Your task to perform on an android device: delete location history Image 0: 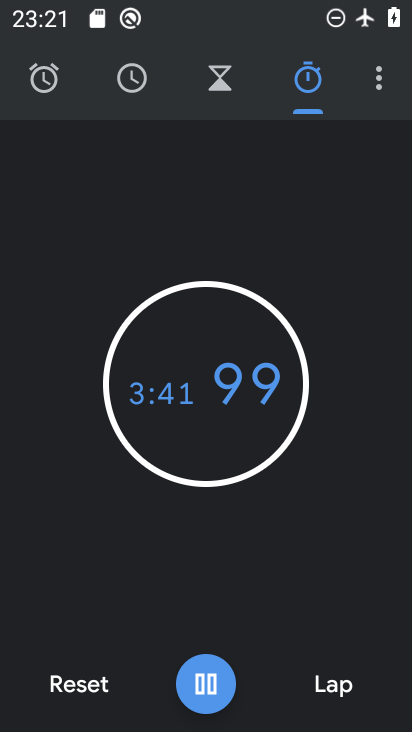
Step 0: drag from (215, 536) to (286, 218)
Your task to perform on an android device: delete location history Image 1: 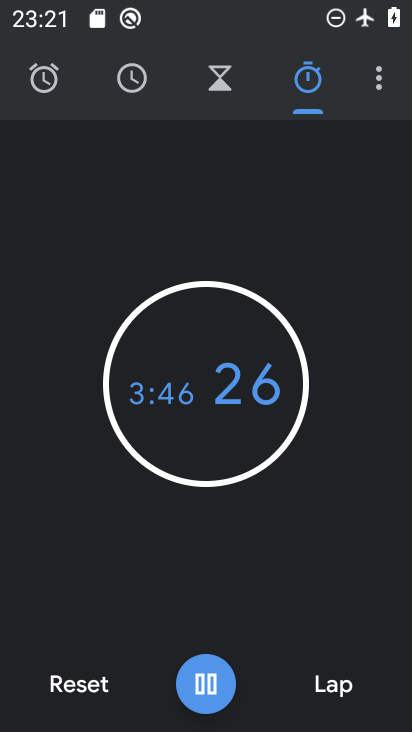
Step 1: press home button
Your task to perform on an android device: delete location history Image 2: 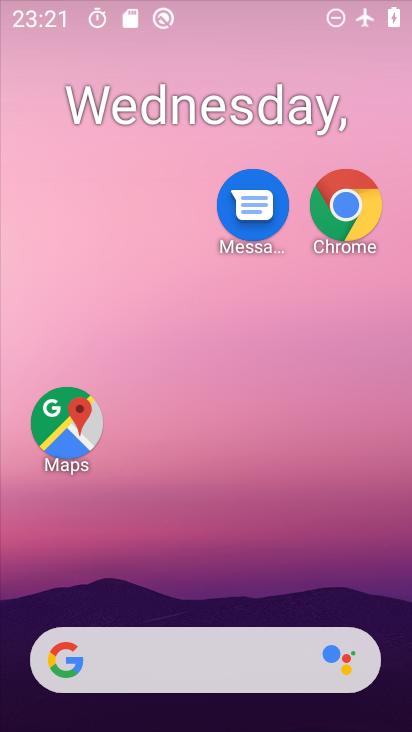
Step 2: drag from (235, 537) to (325, 68)
Your task to perform on an android device: delete location history Image 3: 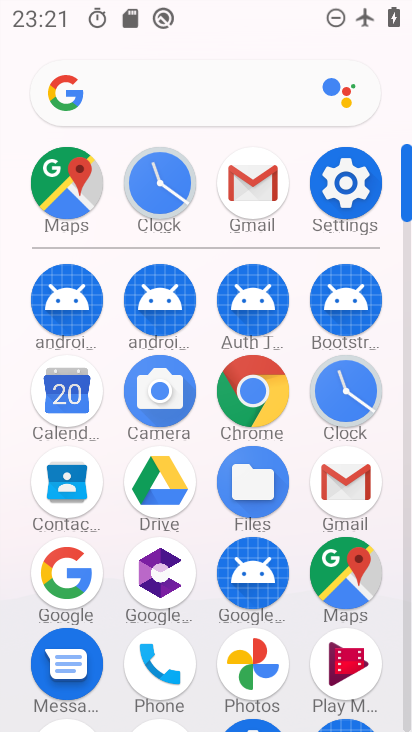
Step 3: click (356, 164)
Your task to perform on an android device: delete location history Image 4: 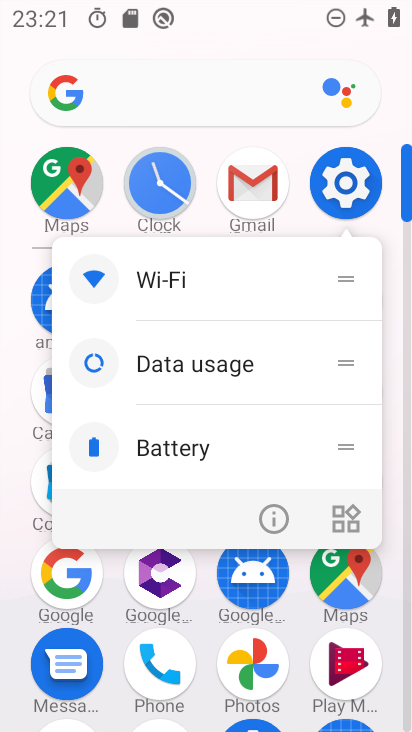
Step 4: click (265, 522)
Your task to perform on an android device: delete location history Image 5: 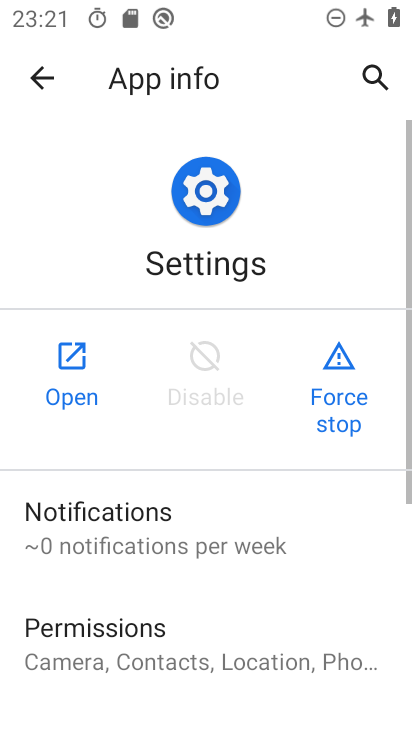
Step 5: click (85, 367)
Your task to perform on an android device: delete location history Image 6: 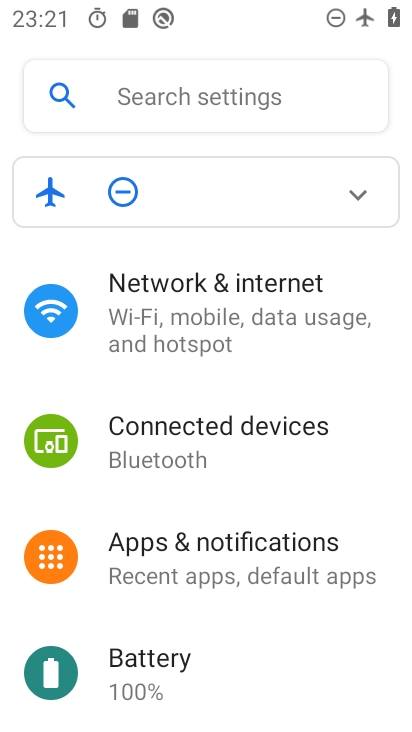
Step 6: drag from (234, 593) to (366, 31)
Your task to perform on an android device: delete location history Image 7: 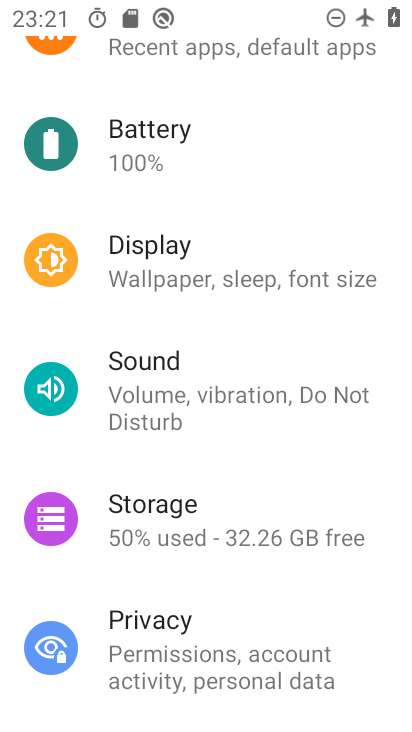
Step 7: drag from (303, 453) to (398, 163)
Your task to perform on an android device: delete location history Image 8: 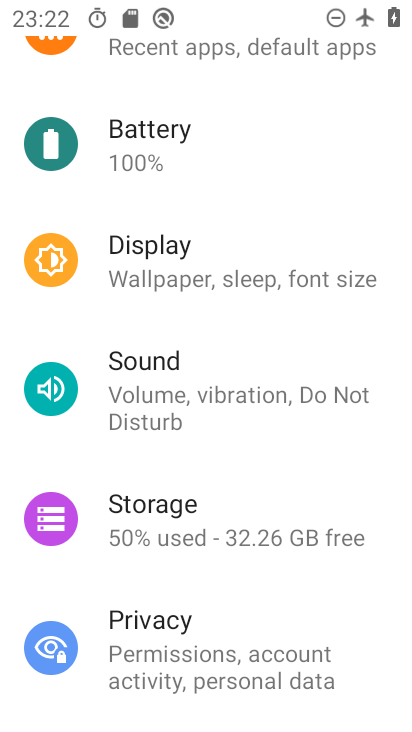
Step 8: drag from (219, 495) to (275, 133)
Your task to perform on an android device: delete location history Image 9: 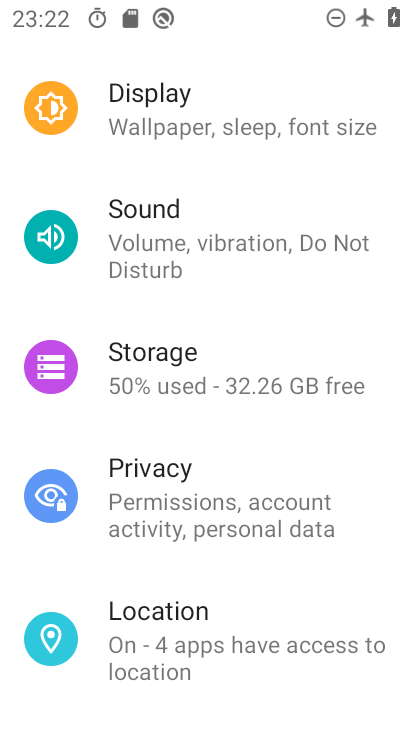
Step 9: click (188, 603)
Your task to perform on an android device: delete location history Image 10: 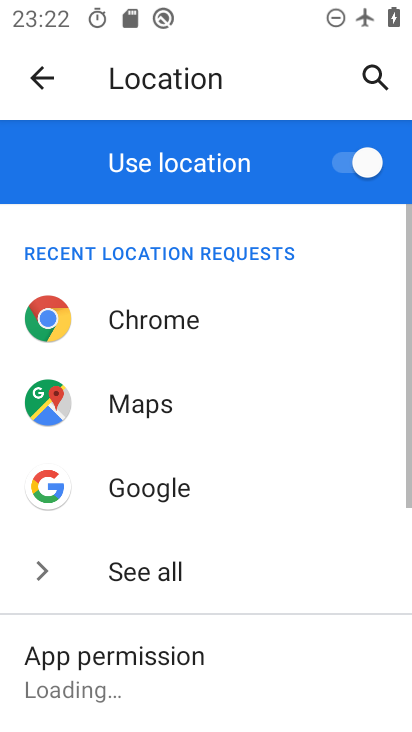
Step 10: drag from (229, 541) to (369, 8)
Your task to perform on an android device: delete location history Image 11: 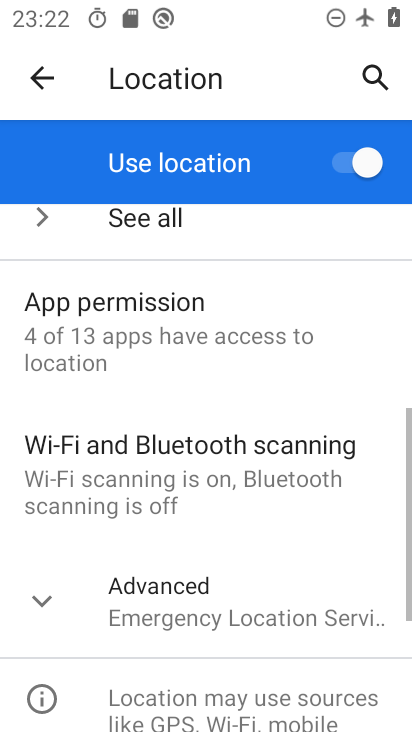
Step 11: click (195, 620)
Your task to perform on an android device: delete location history Image 12: 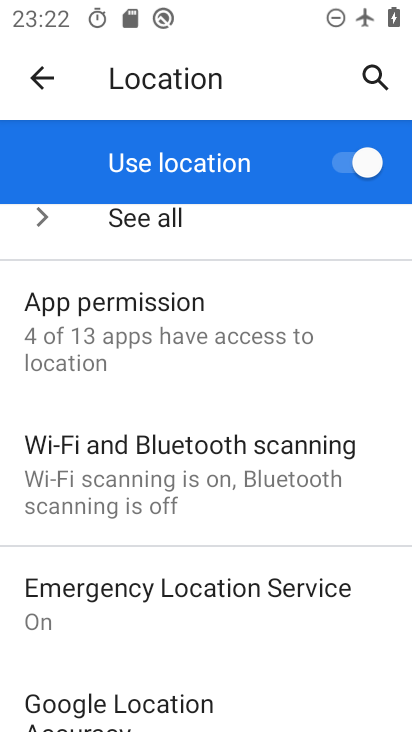
Step 12: drag from (249, 619) to (304, 139)
Your task to perform on an android device: delete location history Image 13: 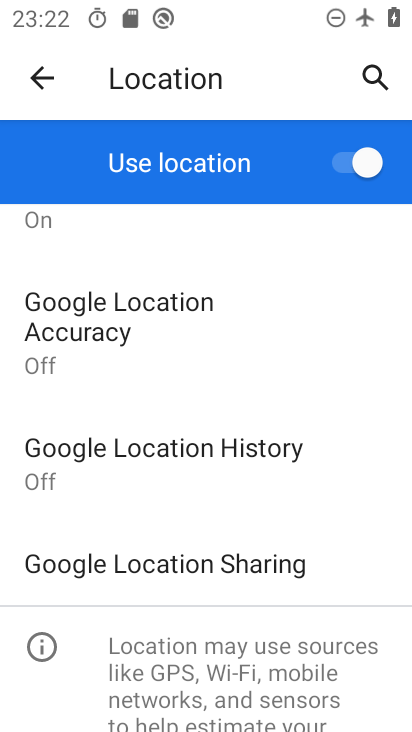
Step 13: click (205, 452)
Your task to perform on an android device: delete location history Image 14: 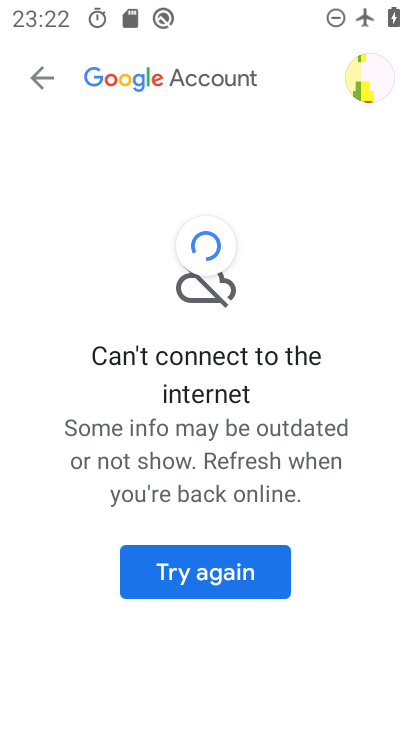
Step 14: task complete